Your task to perform on an android device: See recent photos Image 0: 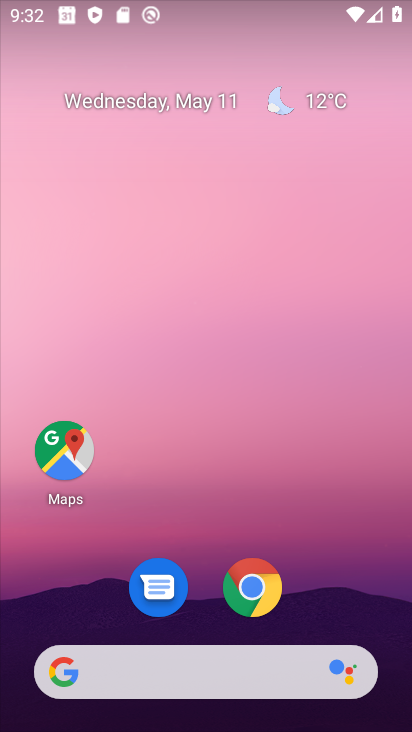
Step 0: click (48, 160)
Your task to perform on an android device: See recent photos Image 1: 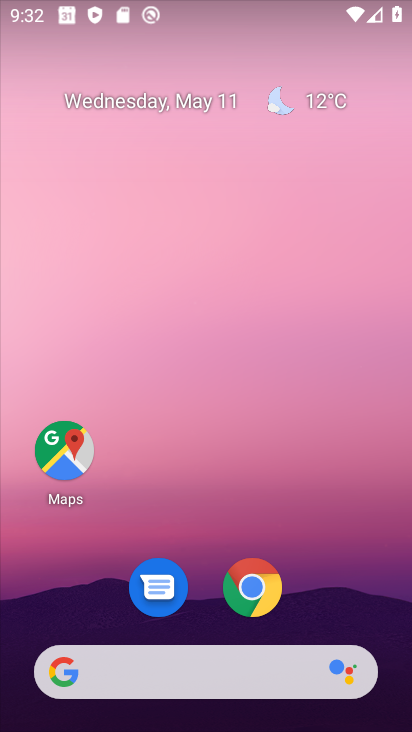
Step 1: drag from (373, 588) to (366, 4)
Your task to perform on an android device: See recent photos Image 2: 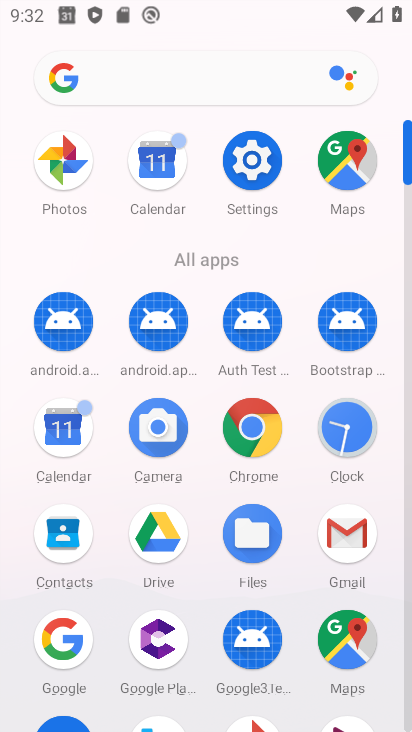
Step 2: click (67, 173)
Your task to perform on an android device: See recent photos Image 3: 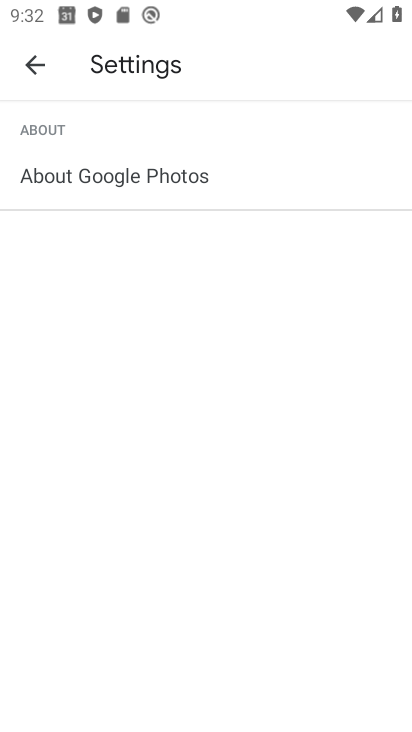
Step 3: click (37, 73)
Your task to perform on an android device: See recent photos Image 4: 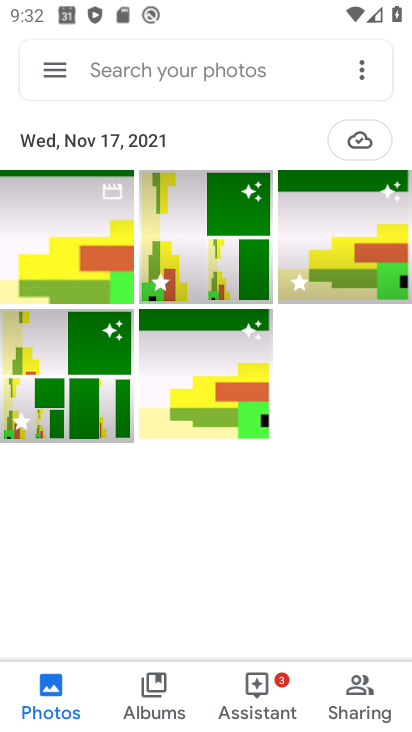
Step 4: task complete